Your task to perform on an android device: search for starred emails in the gmail app Image 0: 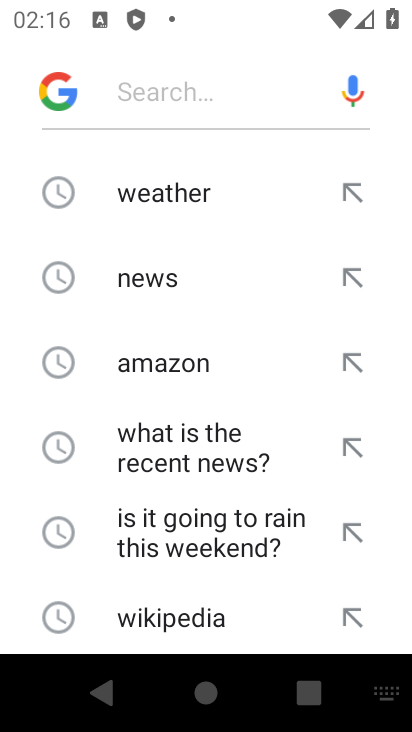
Step 0: press home button
Your task to perform on an android device: search for starred emails in the gmail app Image 1: 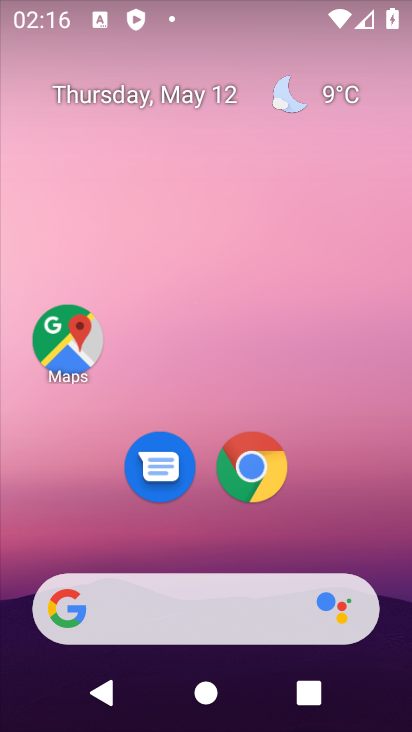
Step 1: drag from (308, 542) to (355, 191)
Your task to perform on an android device: search for starred emails in the gmail app Image 2: 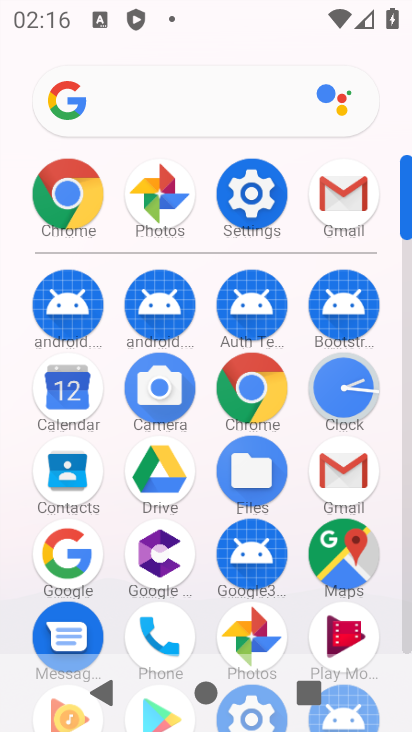
Step 2: click (345, 194)
Your task to perform on an android device: search for starred emails in the gmail app Image 3: 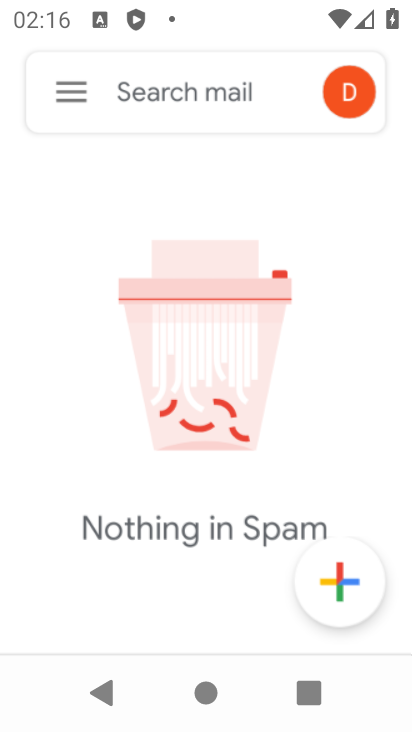
Step 3: click (74, 90)
Your task to perform on an android device: search for starred emails in the gmail app Image 4: 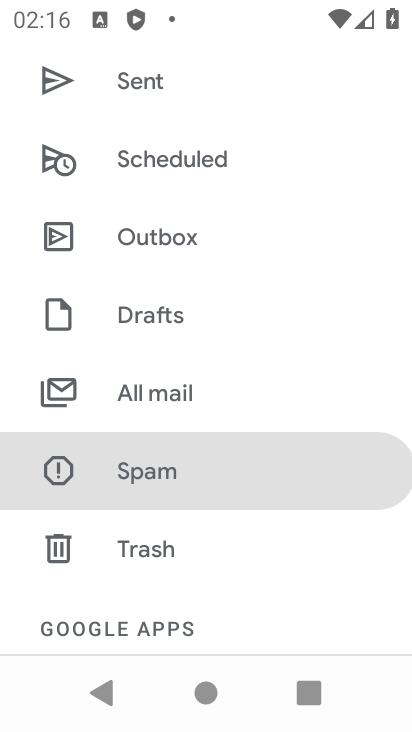
Step 4: drag from (203, 138) to (236, 605)
Your task to perform on an android device: search for starred emails in the gmail app Image 5: 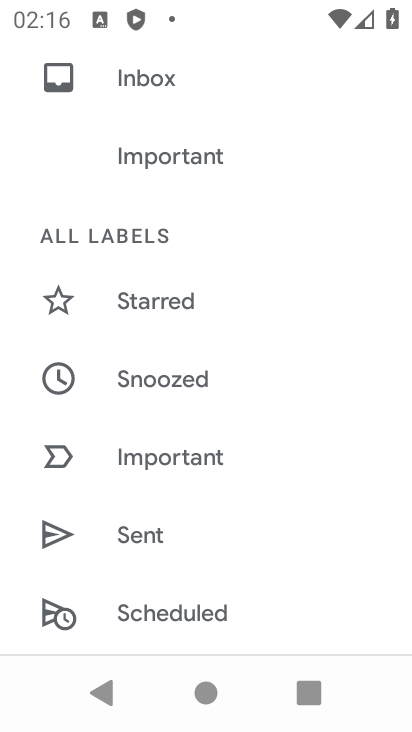
Step 5: click (174, 303)
Your task to perform on an android device: search for starred emails in the gmail app Image 6: 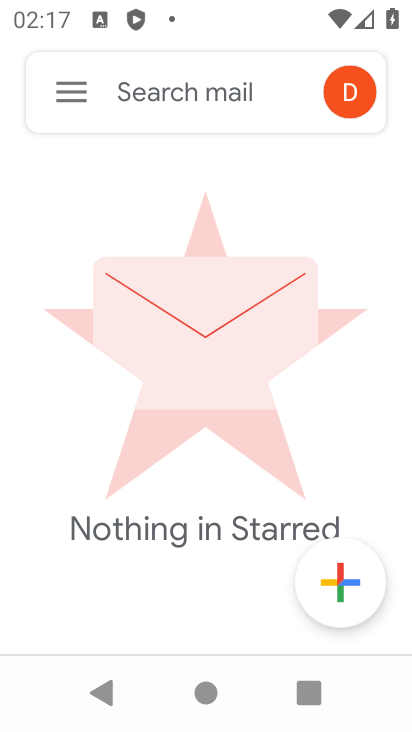
Step 6: task complete